Your task to perform on an android device: toggle priority inbox in the gmail app Image 0: 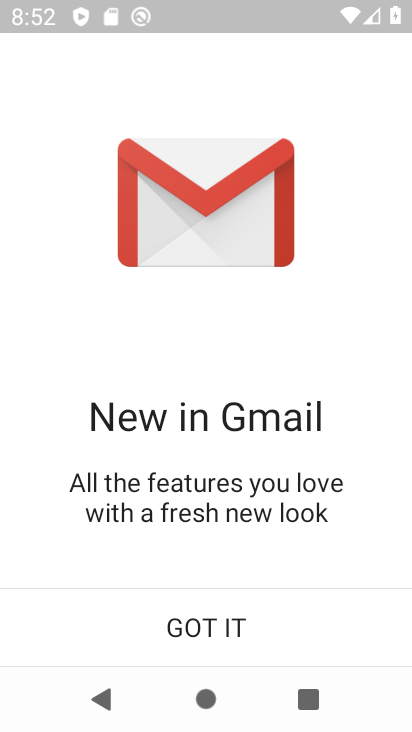
Step 0: click (215, 619)
Your task to perform on an android device: toggle priority inbox in the gmail app Image 1: 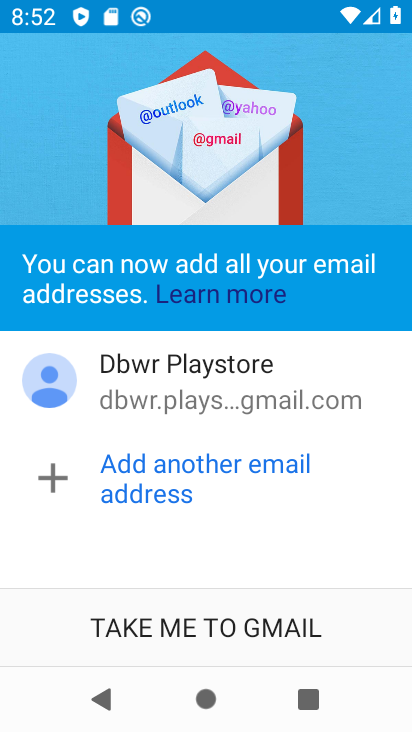
Step 1: click (215, 619)
Your task to perform on an android device: toggle priority inbox in the gmail app Image 2: 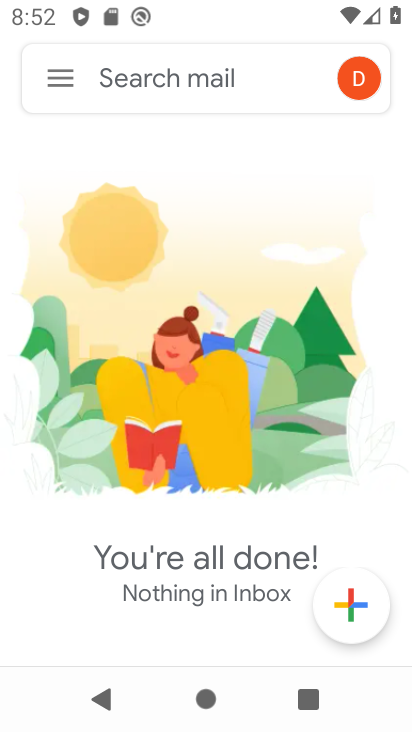
Step 2: click (52, 94)
Your task to perform on an android device: toggle priority inbox in the gmail app Image 3: 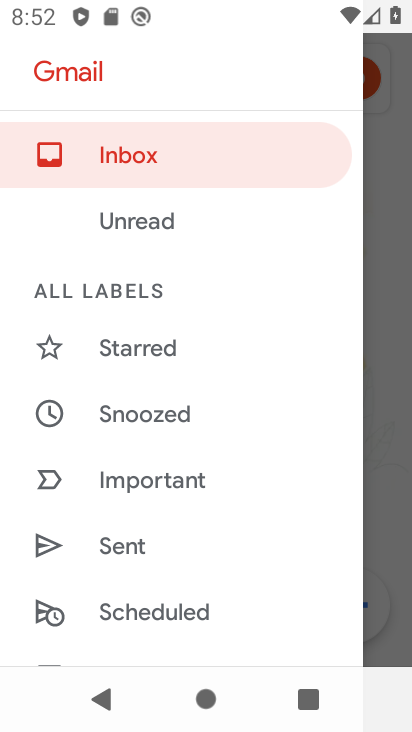
Step 3: drag from (205, 635) to (133, 189)
Your task to perform on an android device: toggle priority inbox in the gmail app Image 4: 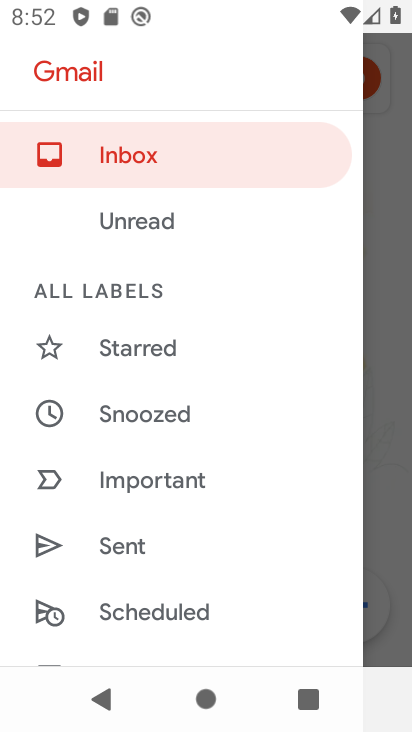
Step 4: drag from (239, 570) to (221, 110)
Your task to perform on an android device: toggle priority inbox in the gmail app Image 5: 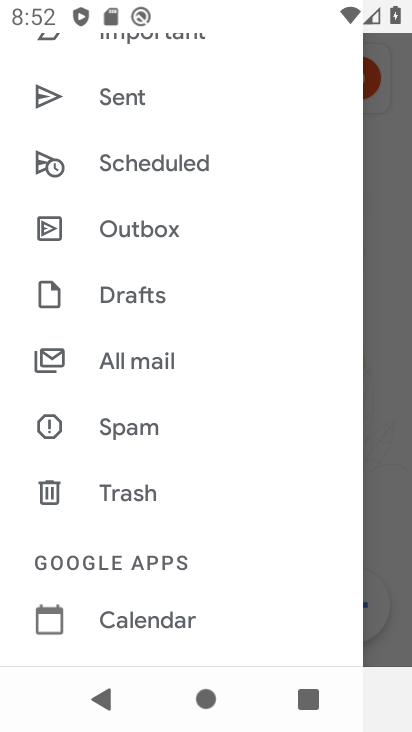
Step 5: drag from (241, 585) to (232, 252)
Your task to perform on an android device: toggle priority inbox in the gmail app Image 6: 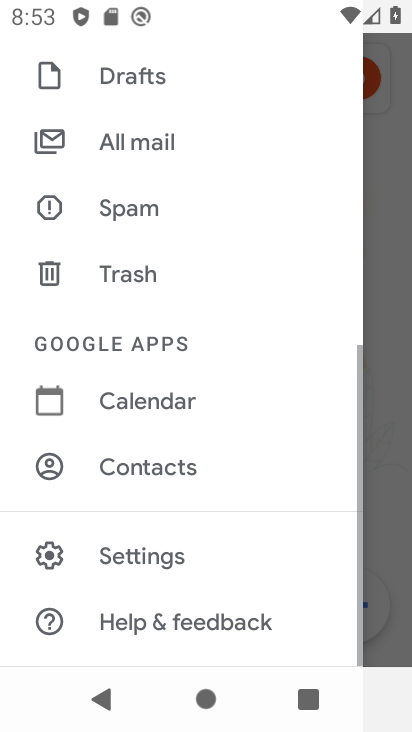
Step 6: click (164, 578)
Your task to perform on an android device: toggle priority inbox in the gmail app Image 7: 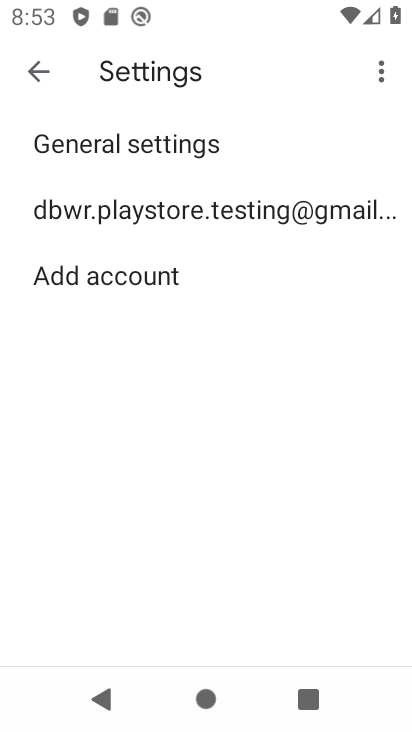
Step 7: click (347, 213)
Your task to perform on an android device: toggle priority inbox in the gmail app Image 8: 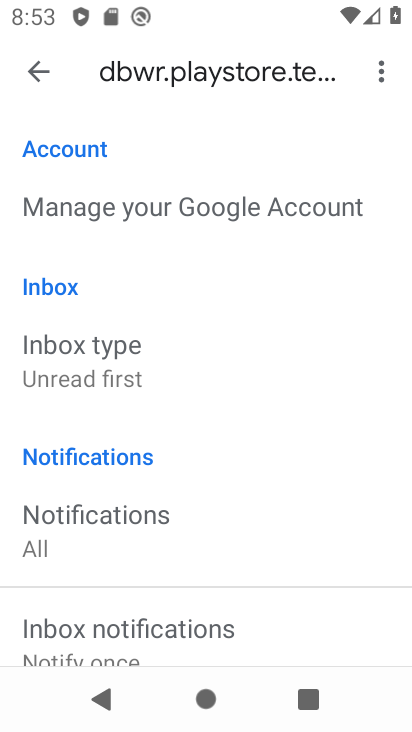
Step 8: drag from (276, 624) to (219, 127)
Your task to perform on an android device: toggle priority inbox in the gmail app Image 9: 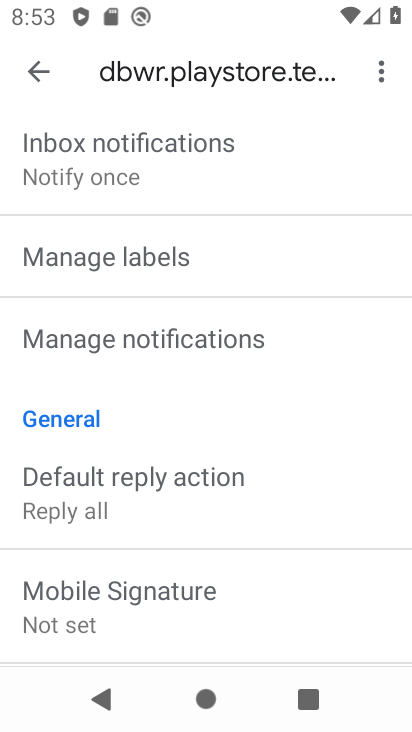
Step 9: drag from (286, 638) to (249, 724)
Your task to perform on an android device: toggle priority inbox in the gmail app Image 10: 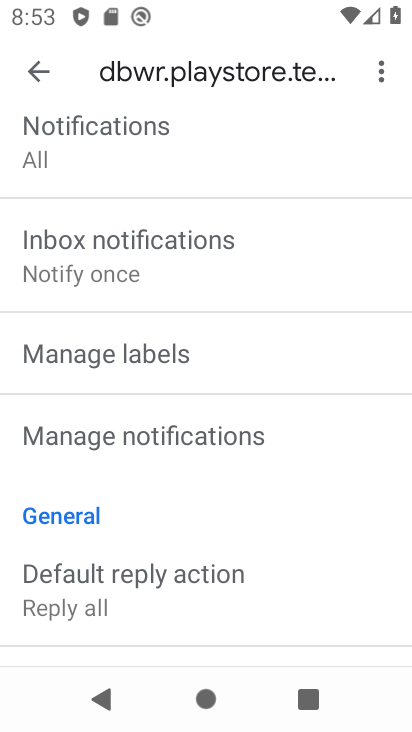
Step 10: drag from (260, 154) to (259, 564)
Your task to perform on an android device: toggle priority inbox in the gmail app Image 11: 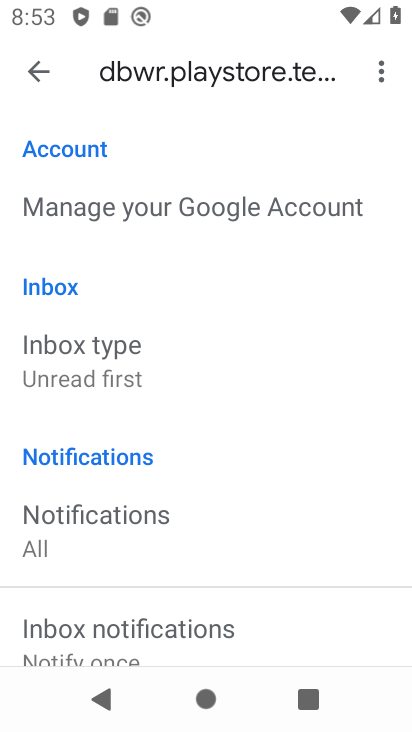
Step 11: click (202, 357)
Your task to perform on an android device: toggle priority inbox in the gmail app Image 12: 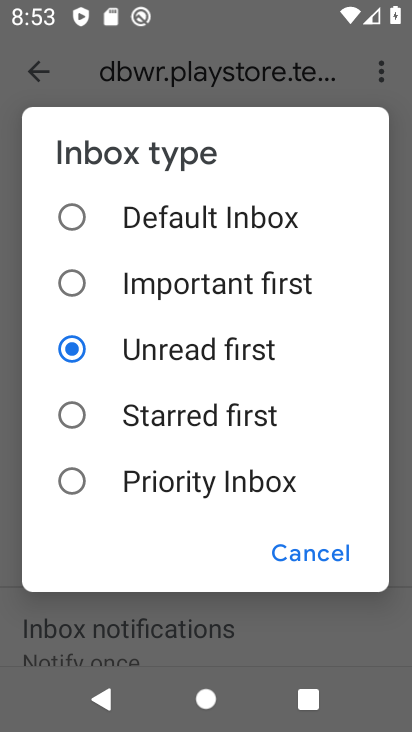
Step 12: click (205, 484)
Your task to perform on an android device: toggle priority inbox in the gmail app Image 13: 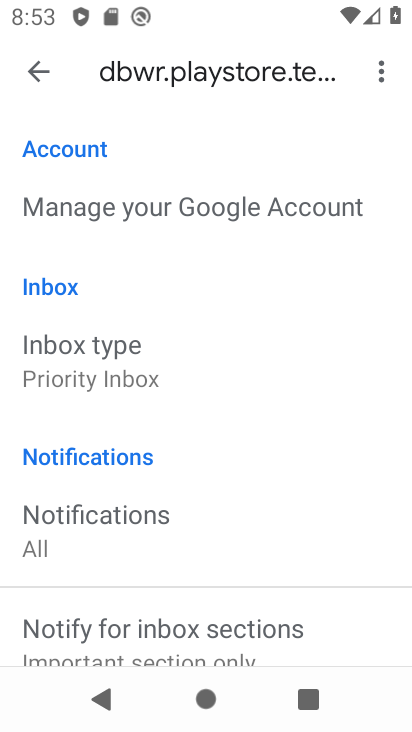
Step 13: task complete